Your task to perform on an android device: What's on my calendar today? Image 0: 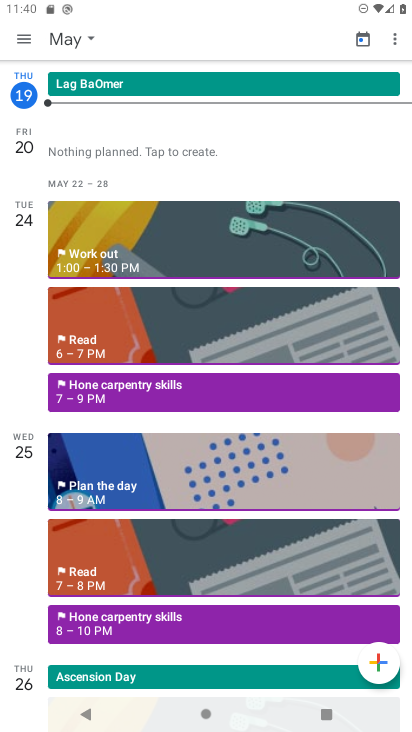
Step 0: press home button
Your task to perform on an android device: What's on my calendar today? Image 1: 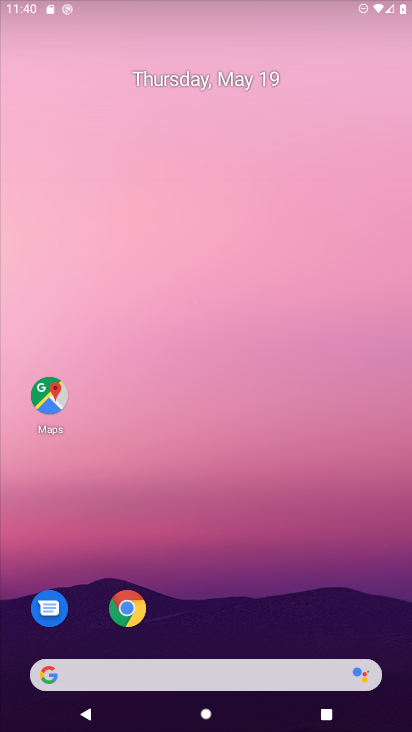
Step 1: drag from (351, 600) to (316, 147)
Your task to perform on an android device: What's on my calendar today? Image 2: 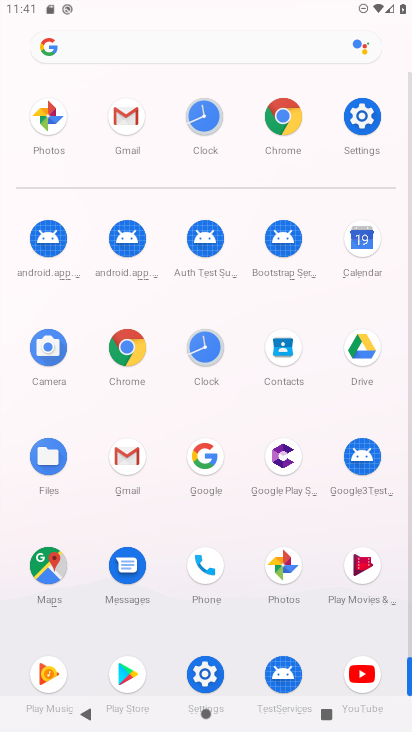
Step 2: click (370, 246)
Your task to perform on an android device: What's on my calendar today? Image 3: 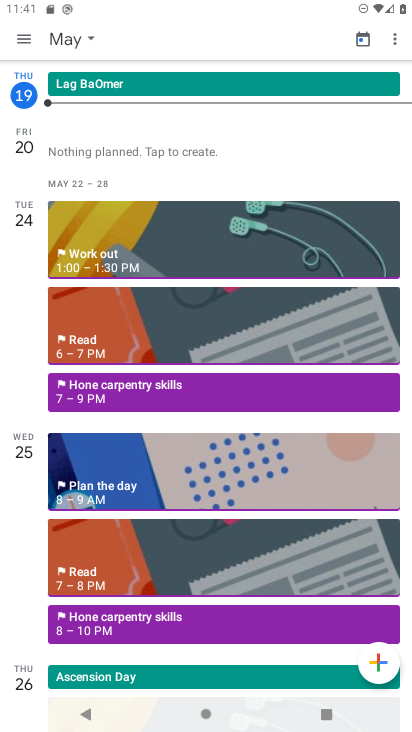
Step 3: click (87, 28)
Your task to perform on an android device: What's on my calendar today? Image 4: 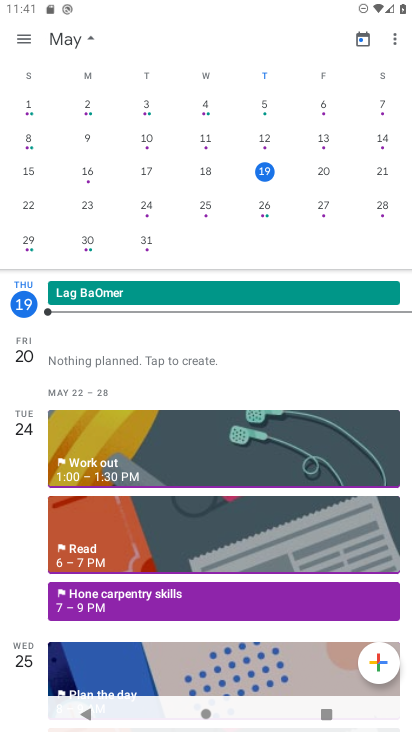
Step 4: click (87, 28)
Your task to perform on an android device: What's on my calendar today? Image 5: 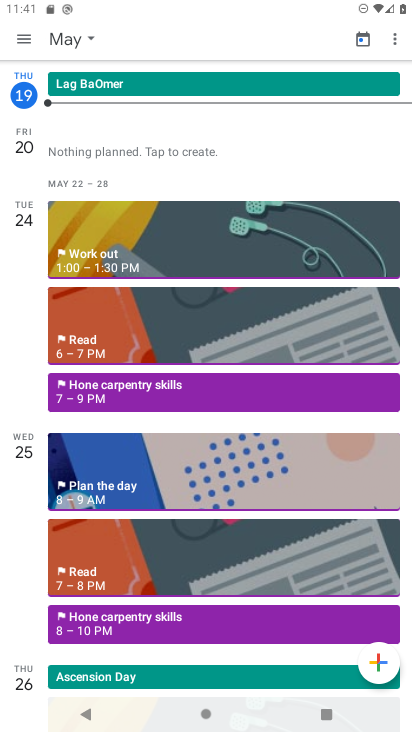
Step 5: click (87, 28)
Your task to perform on an android device: What's on my calendar today? Image 6: 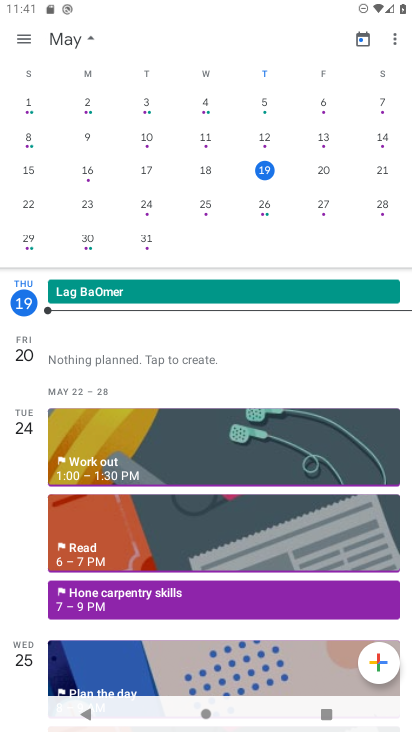
Step 6: click (87, 28)
Your task to perform on an android device: What's on my calendar today? Image 7: 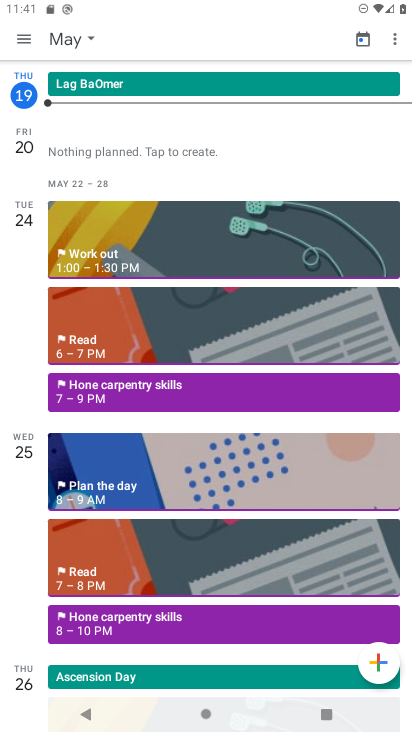
Step 7: click (82, 43)
Your task to perform on an android device: What's on my calendar today? Image 8: 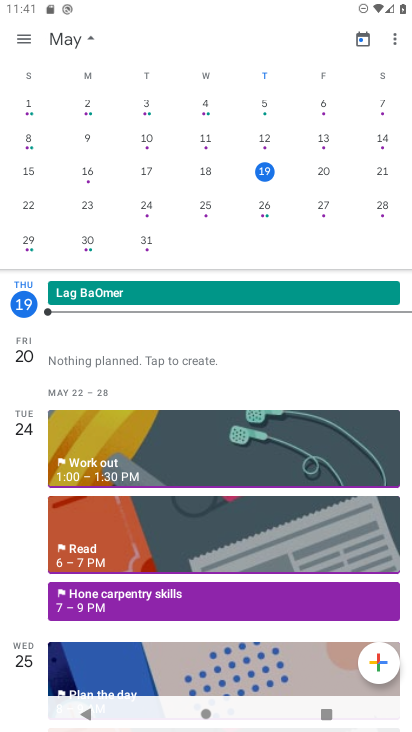
Step 8: click (315, 177)
Your task to perform on an android device: What's on my calendar today? Image 9: 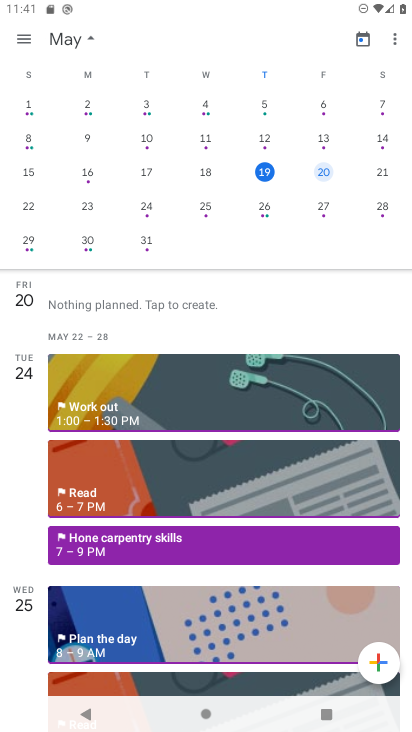
Step 9: click (88, 37)
Your task to perform on an android device: What's on my calendar today? Image 10: 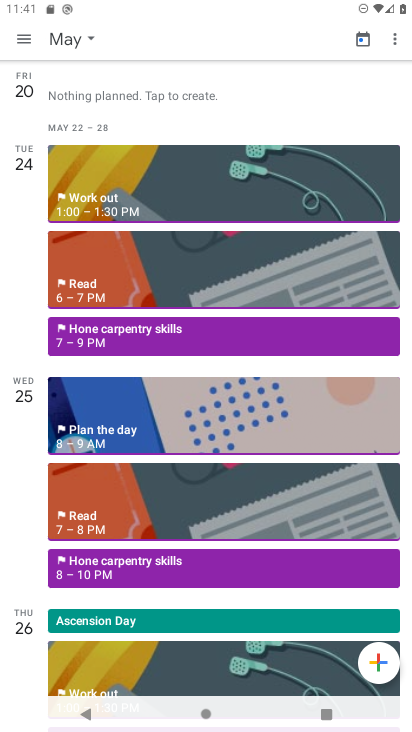
Step 10: task complete